Your task to perform on an android device: Open Google Chrome Image 0: 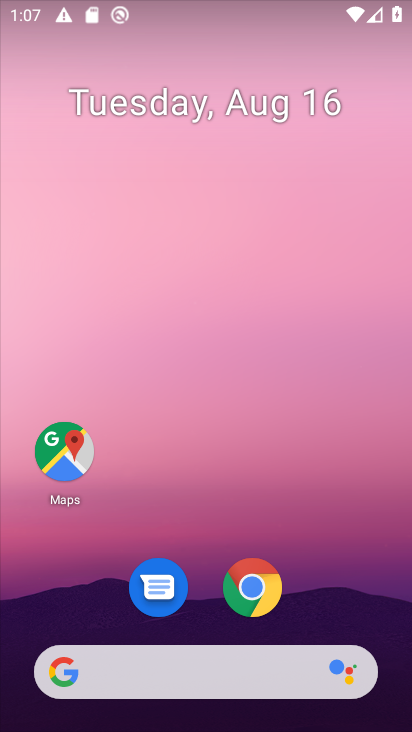
Step 0: click (270, 585)
Your task to perform on an android device: Open Google Chrome Image 1: 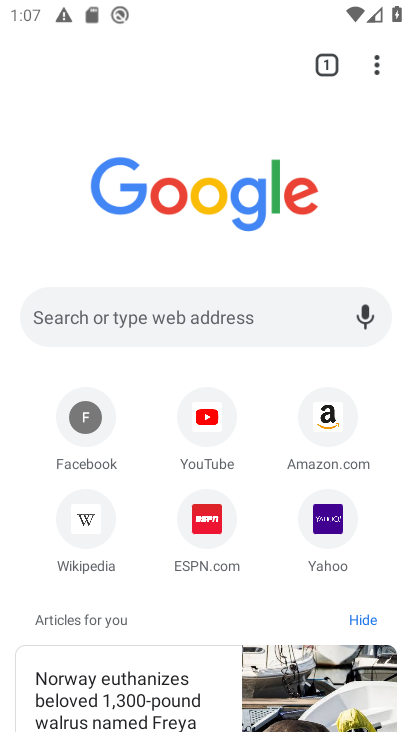
Step 1: task complete